Your task to perform on an android device: Open accessibility settings Image 0: 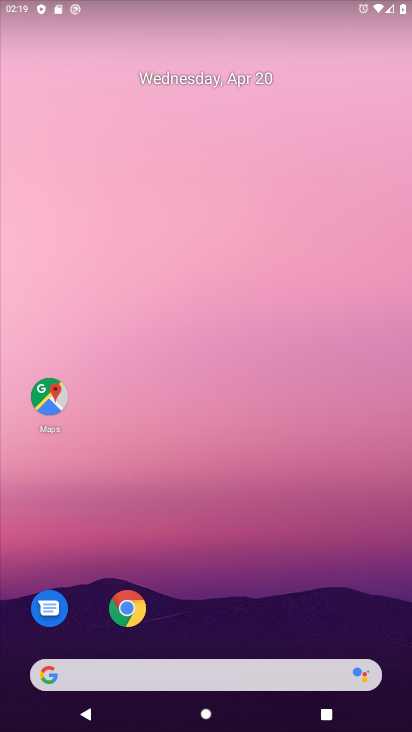
Step 0: drag from (245, 617) to (201, 116)
Your task to perform on an android device: Open accessibility settings Image 1: 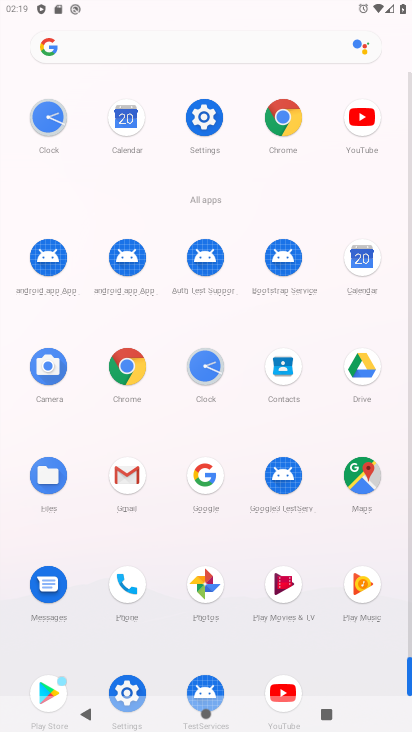
Step 1: click (197, 130)
Your task to perform on an android device: Open accessibility settings Image 2: 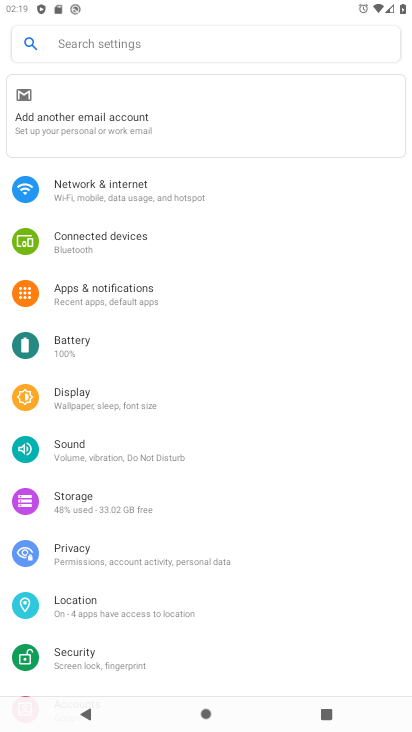
Step 2: drag from (107, 446) to (115, 397)
Your task to perform on an android device: Open accessibility settings Image 3: 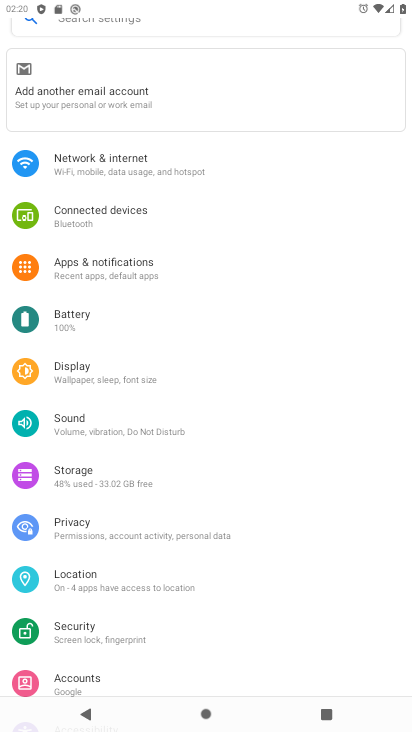
Step 3: drag from (108, 381) to (101, 333)
Your task to perform on an android device: Open accessibility settings Image 4: 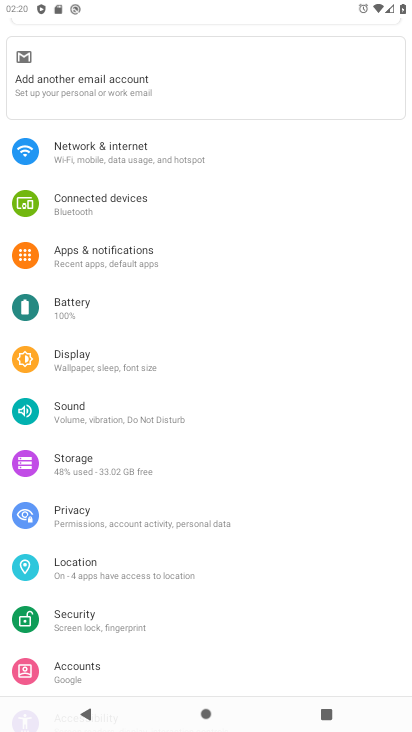
Step 4: drag from (107, 485) to (105, 431)
Your task to perform on an android device: Open accessibility settings Image 5: 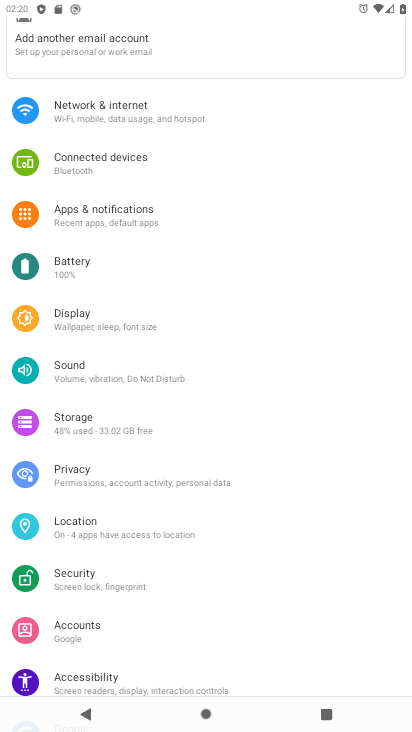
Step 5: click (78, 681)
Your task to perform on an android device: Open accessibility settings Image 6: 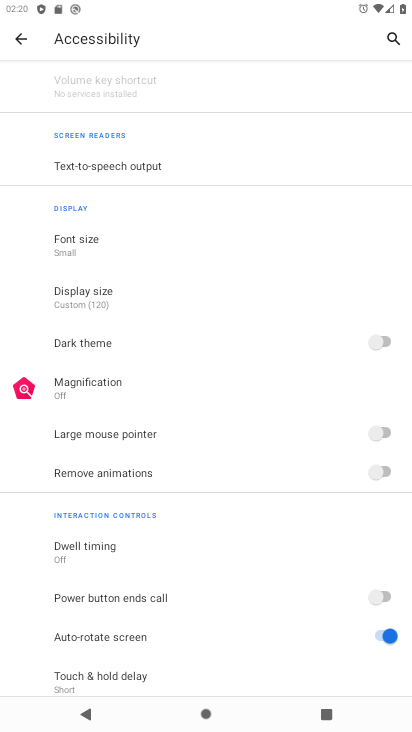
Step 6: task complete